Your task to perform on an android device: Go to CNN.com Image 0: 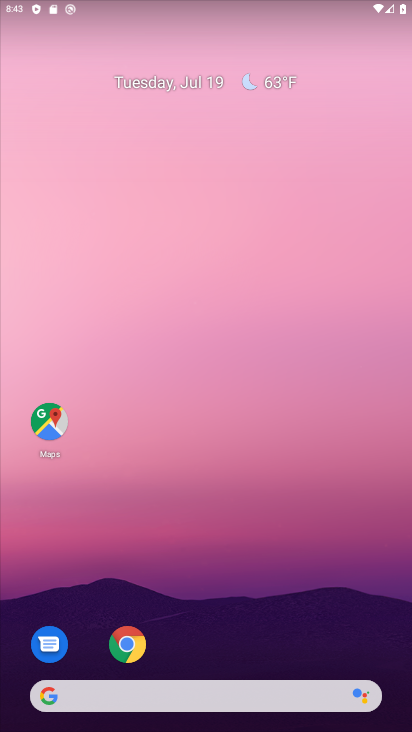
Step 0: drag from (223, 287) to (222, 249)
Your task to perform on an android device: Go to CNN.com Image 1: 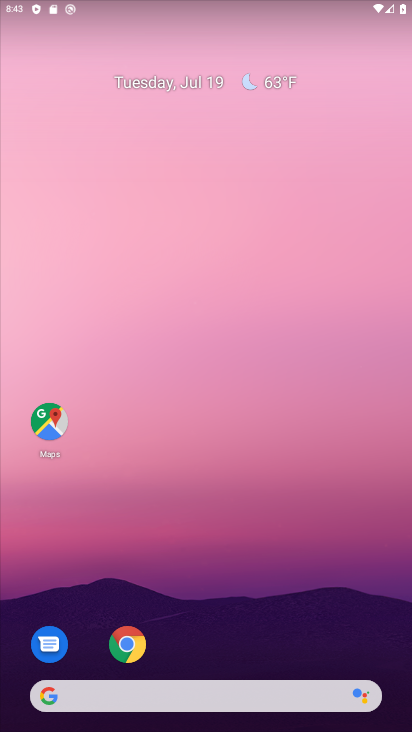
Step 1: drag from (148, 592) to (138, 83)
Your task to perform on an android device: Go to CNN.com Image 2: 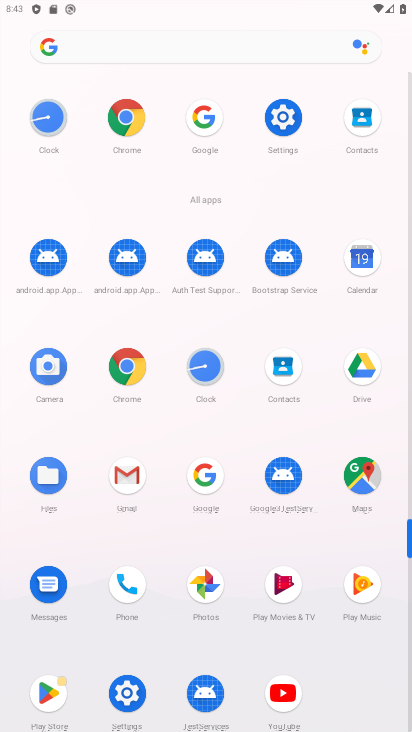
Step 2: click (279, 112)
Your task to perform on an android device: Go to CNN.com Image 3: 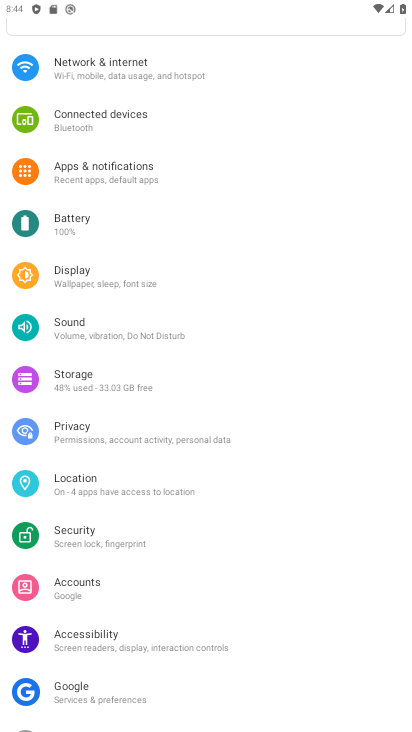
Step 3: click (117, 70)
Your task to perform on an android device: Go to CNN.com Image 4: 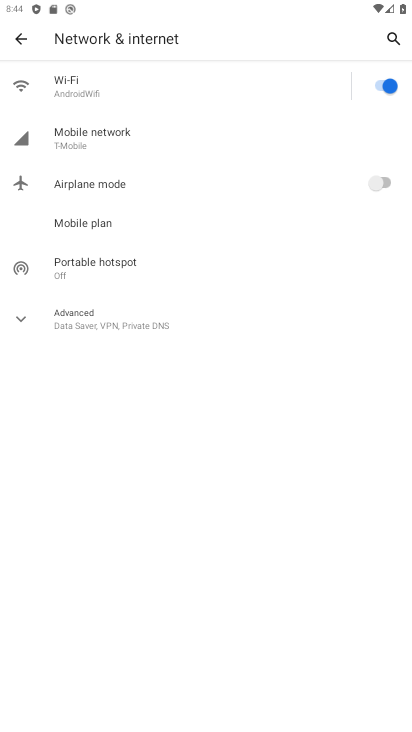
Step 4: click (17, 40)
Your task to perform on an android device: Go to CNN.com Image 5: 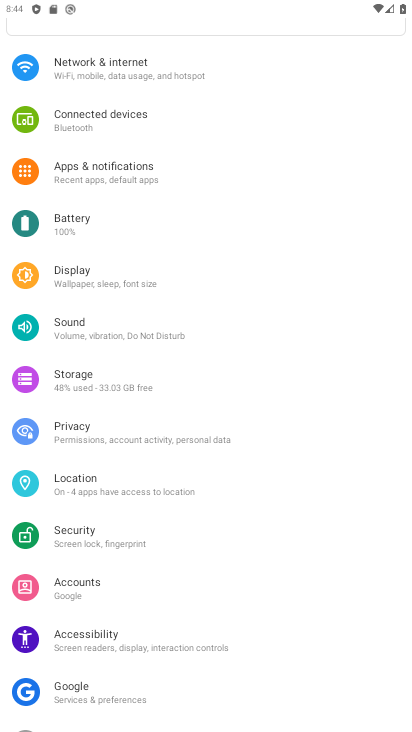
Step 5: click (76, 286)
Your task to perform on an android device: Go to CNN.com Image 6: 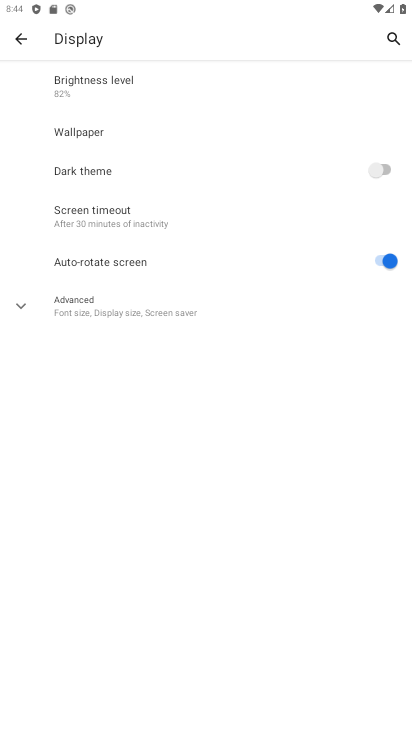
Step 6: click (87, 307)
Your task to perform on an android device: Go to CNN.com Image 7: 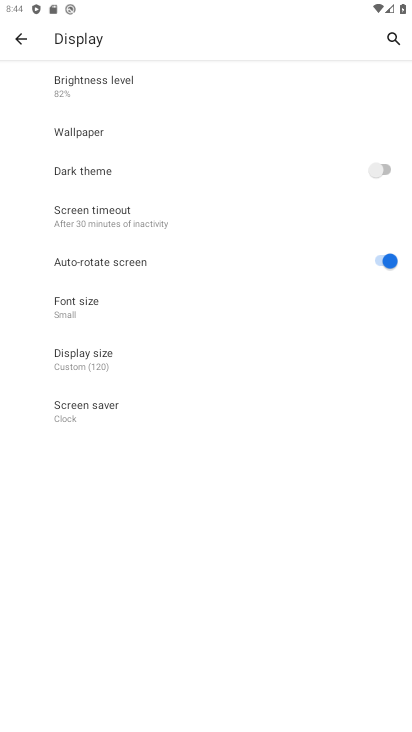
Step 7: click (76, 311)
Your task to perform on an android device: Go to CNN.com Image 8: 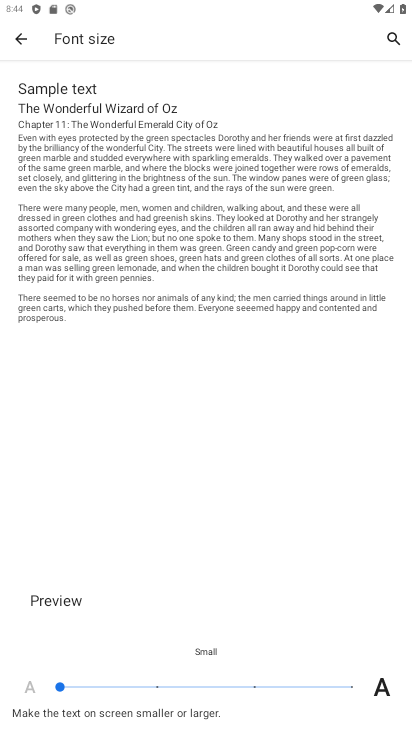
Step 8: click (356, 686)
Your task to perform on an android device: Go to CNN.com Image 9: 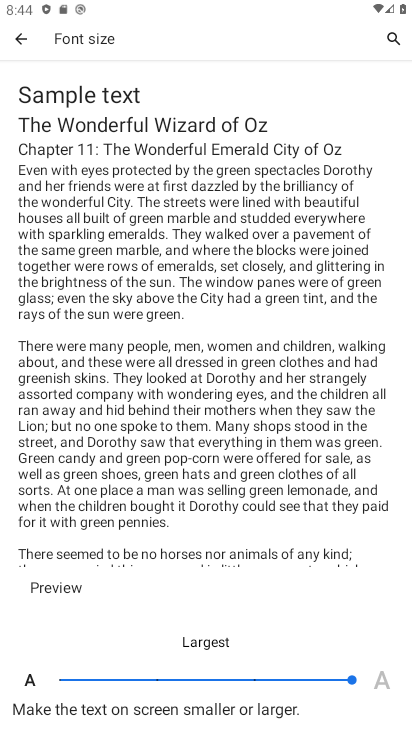
Step 9: task complete